Your task to perform on an android device: Go to network settings Image 0: 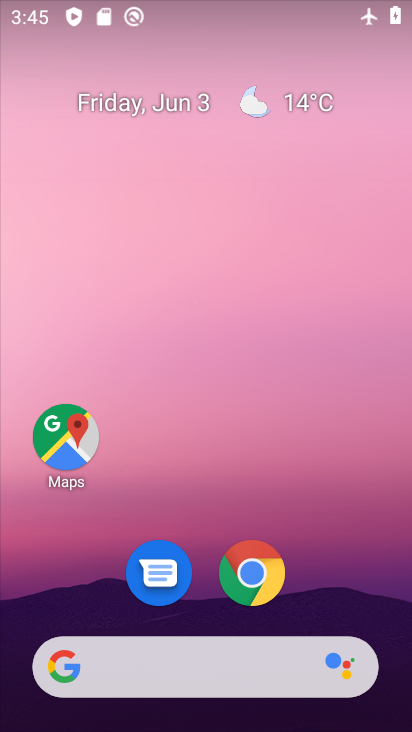
Step 0: drag from (176, 545) to (231, 165)
Your task to perform on an android device: Go to network settings Image 1: 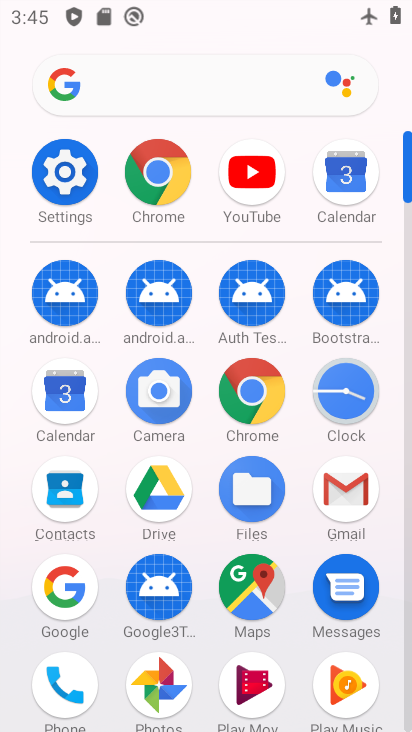
Step 1: click (50, 180)
Your task to perform on an android device: Go to network settings Image 2: 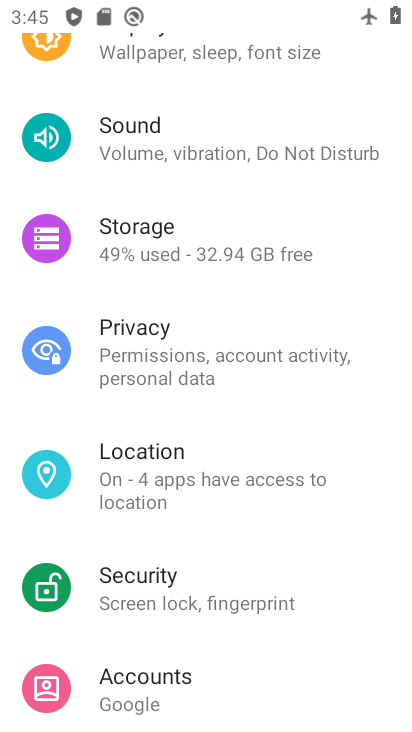
Step 2: drag from (160, 315) to (170, 398)
Your task to perform on an android device: Go to network settings Image 3: 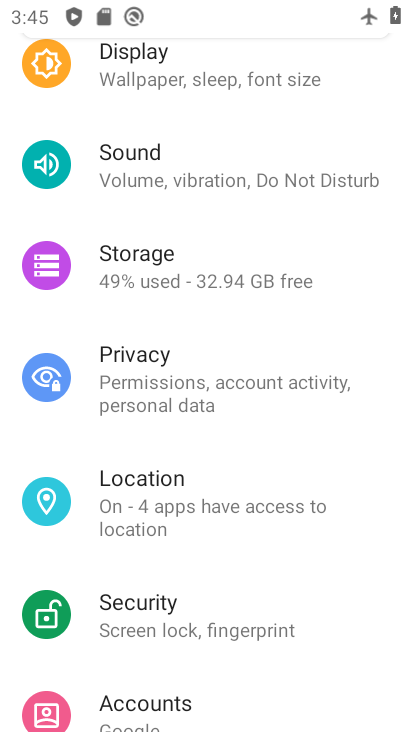
Step 3: drag from (274, 255) to (250, 547)
Your task to perform on an android device: Go to network settings Image 4: 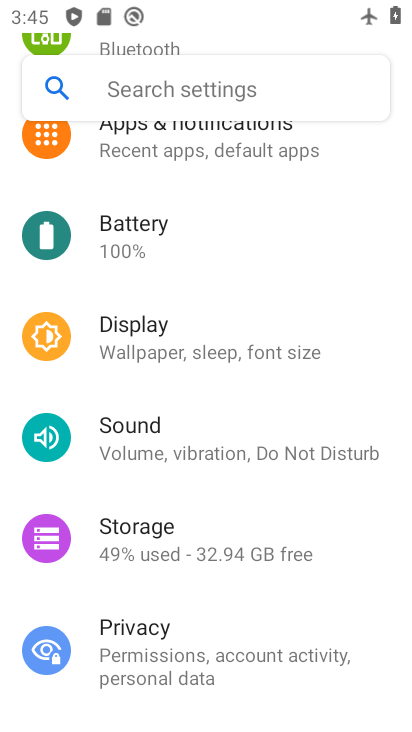
Step 4: drag from (228, 386) to (99, 697)
Your task to perform on an android device: Go to network settings Image 5: 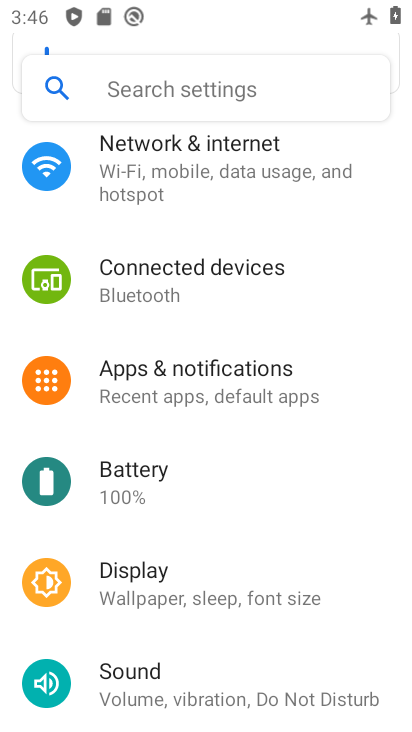
Step 5: drag from (163, 359) to (117, 651)
Your task to perform on an android device: Go to network settings Image 6: 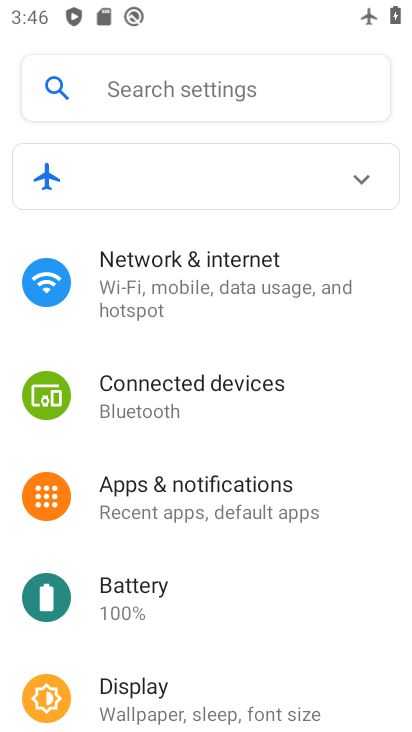
Step 6: click (200, 299)
Your task to perform on an android device: Go to network settings Image 7: 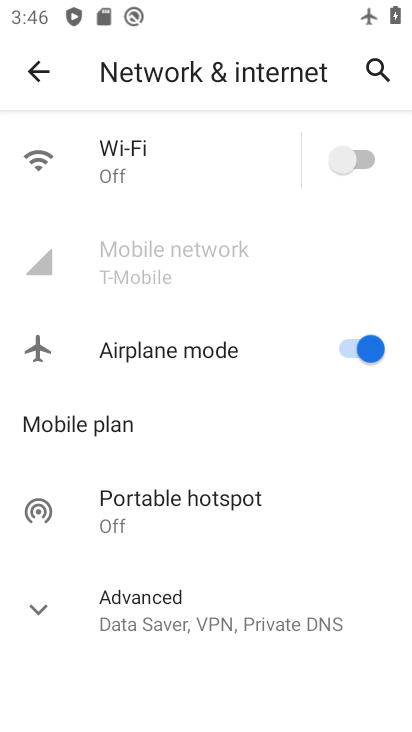
Step 7: task complete